Your task to perform on an android device: manage bookmarks in the chrome app Image 0: 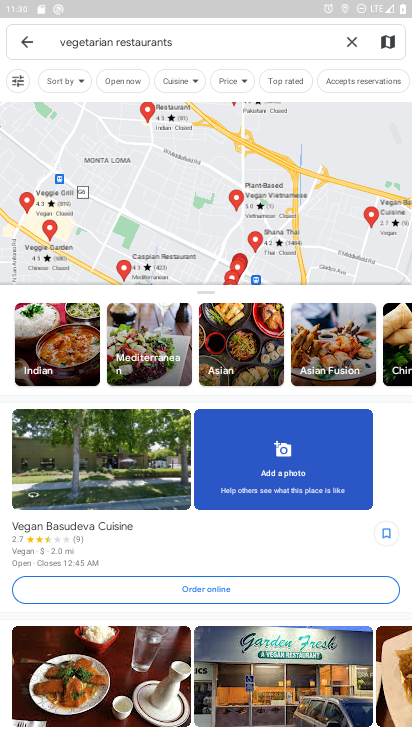
Step 0: press home button
Your task to perform on an android device: manage bookmarks in the chrome app Image 1: 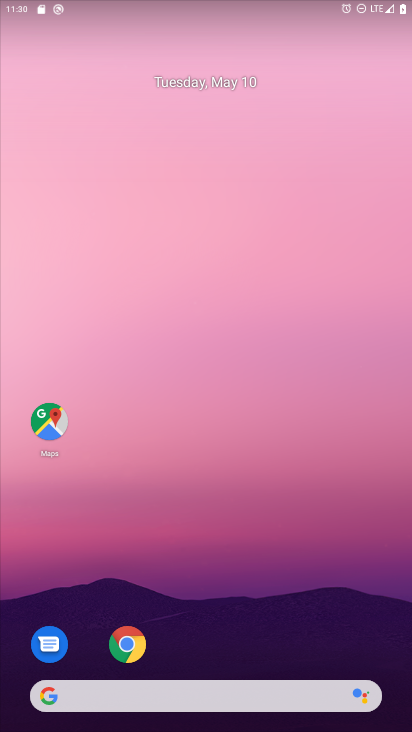
Step 1: drag from (212, 705) to (205, 261)
Your task to perform on an android device: manage bookmarks in the chrome app Image 2: 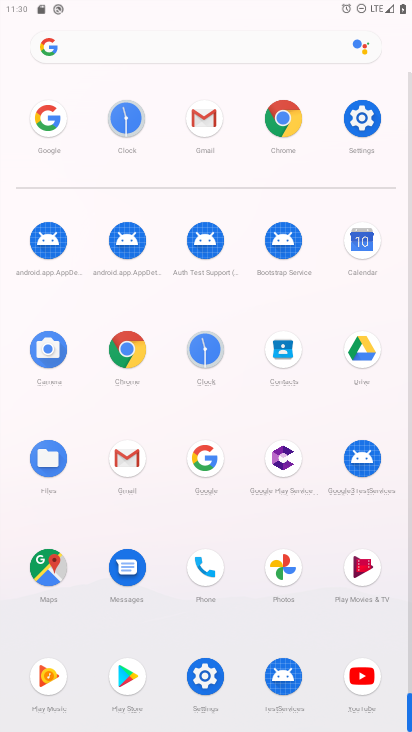
Step 2: click (288, 134)
Your task to perform on an android device: manage bookmarks in the chrome app Image 3: 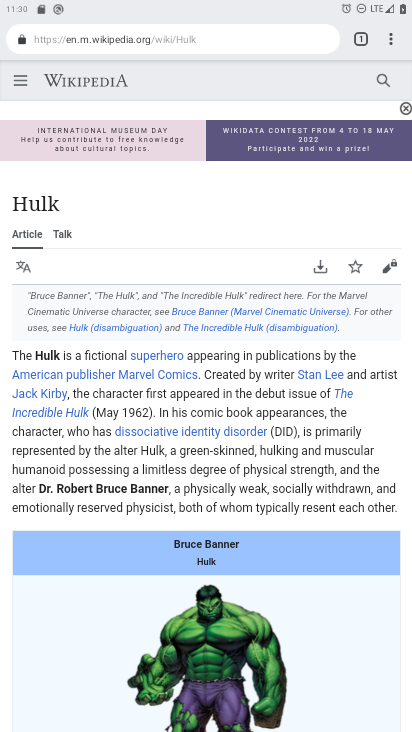
Step 3: click (388, 41)
Your task to perform on an android device: manage bookmarks in the chrome app Image 4: 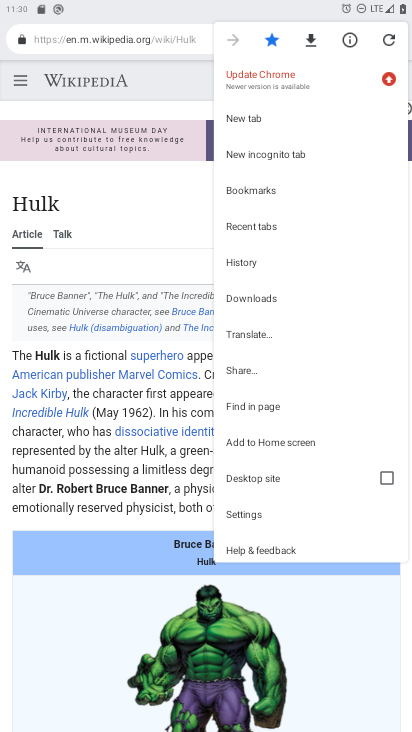
Step 4: click (304, 186)
Your task to perform on an android device: manage bookmarks in the chrome app Image 5: 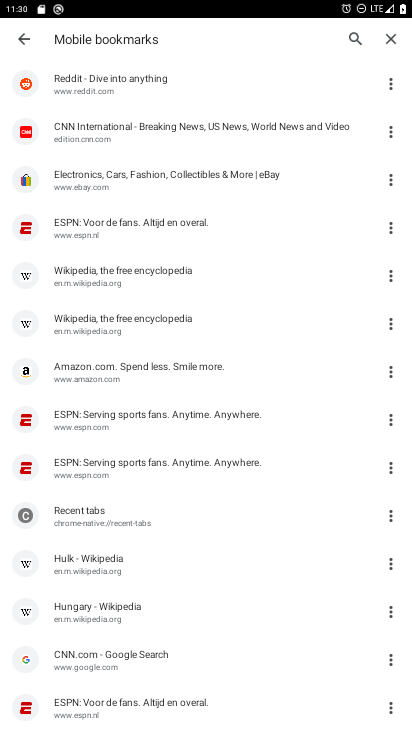
Step 5: task complete